Your task to perform on an android device: Search for seafood restaurants on Google Maps Image 0: 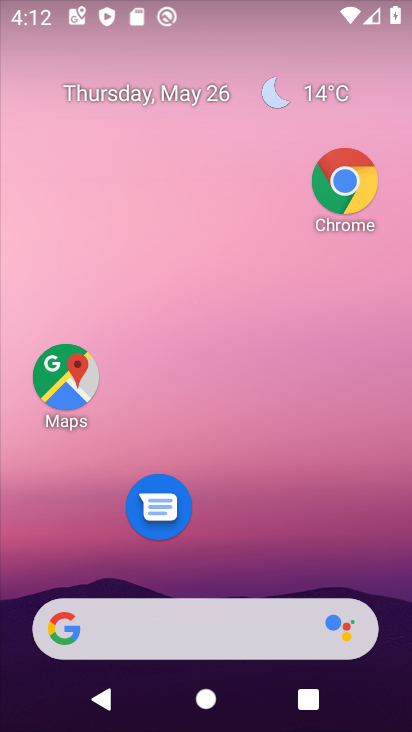
Step 0: click (64, 380)
Your task to perform on an android device: Search for seafood restaurants on Google Maps Image 1: 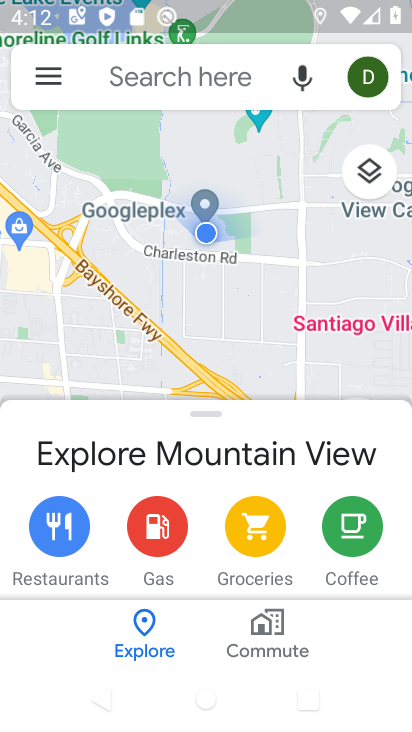
Step 1: click (175, 78)
Your task to perform on an android device: Search for seafood restaurants on Google Maps Image 2: 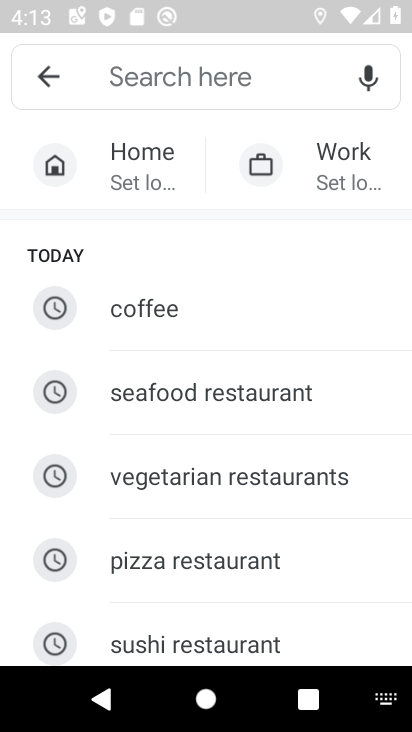
Step 2: type "seafood restaurants"
Your task to perform on an android device: Search for seafood restaurants on Google Maps Image 3: 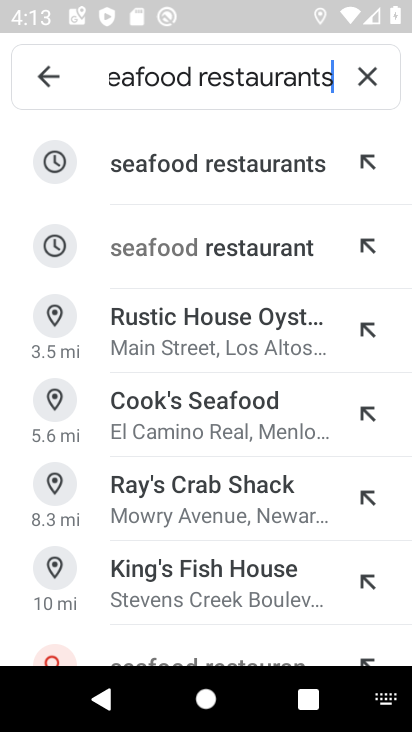
Step 3: click (235, 166)
Your task to perform on an android device: Search for seafood restaurants on Google Maps Image 4: 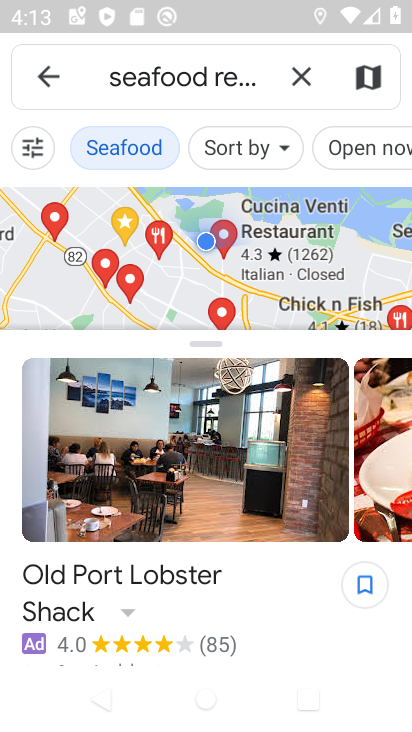
Step 4: task complete